Your task to perform on an android device: clear history in the chrome app Image 0: 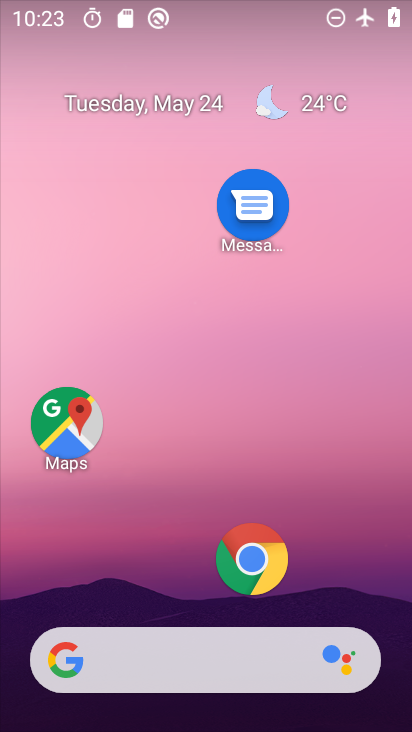
Step 0: click (248, 544)
Your task to perform on an android device: clear history in the chrome app Image 1: 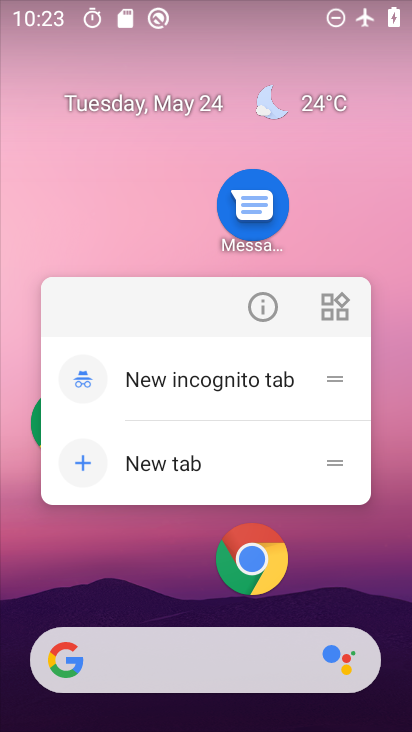
Step 1: click (251, 565)
Your task to perform on an android device: clear history in the chrome app Image 2: 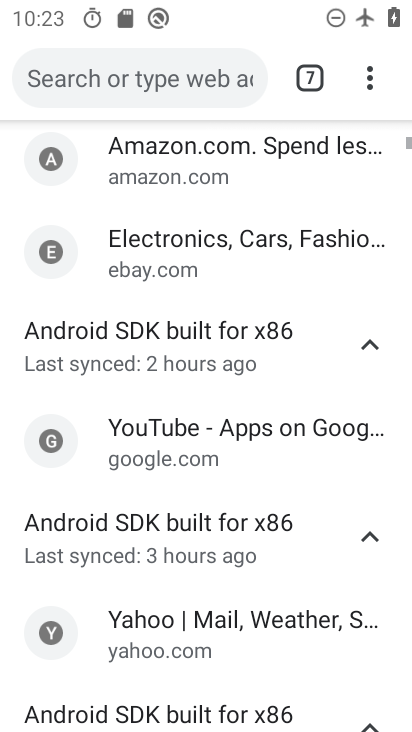
Step 2: task complete